Your task to perform on an android device: toggle improve location accuracy Image 0: 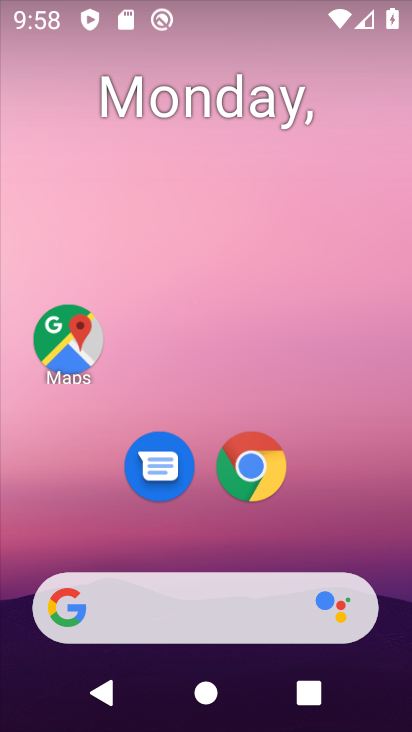
Step 0: drag from (188, 555) to (175, 125)
Your task to perform on an android device: toggle improve location accuracy Image 1: 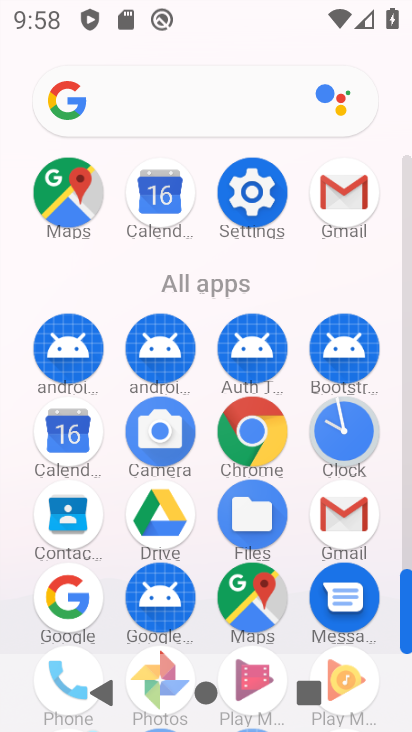
Step 1: click (255, 190)
Your task to perform on an android device: toggle improve location accuracy Image 2: 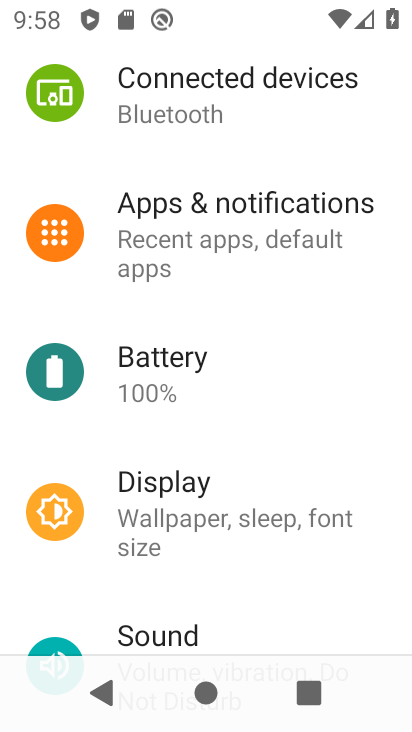
Step 2: drag from (207, 176) to (269, 174)
Your task to perform on an android device: toggle improve location accuracy Image 3: 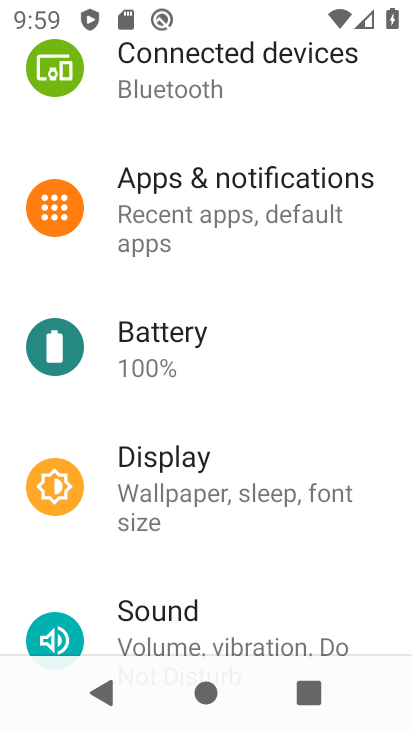
Step 3: drag from (212, 539) to (203, 150)
Your task to perform on an android device: toggle improve location accuracy Image 4: 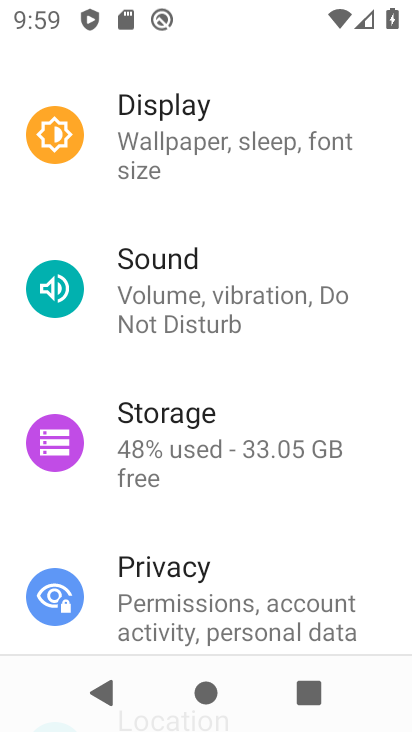
Step 4: drag from (203, 533) to (207, 107)
Your task to perform on an android device: toggle improve location accuracy Image 5: 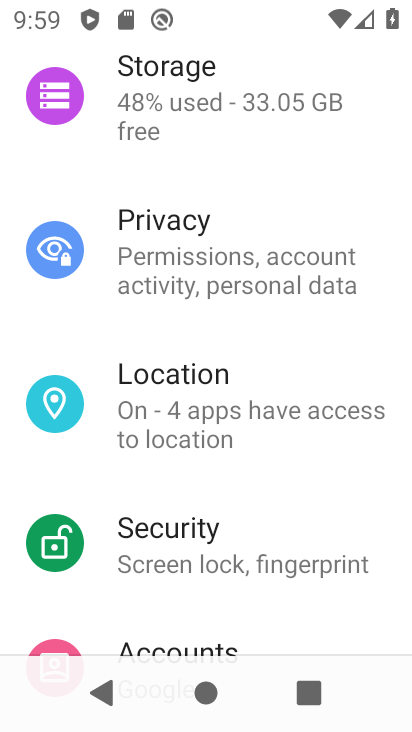
Step 5: click (169, 405)
Your task to perform on an android device: toggle improve location accuracy Image 6: 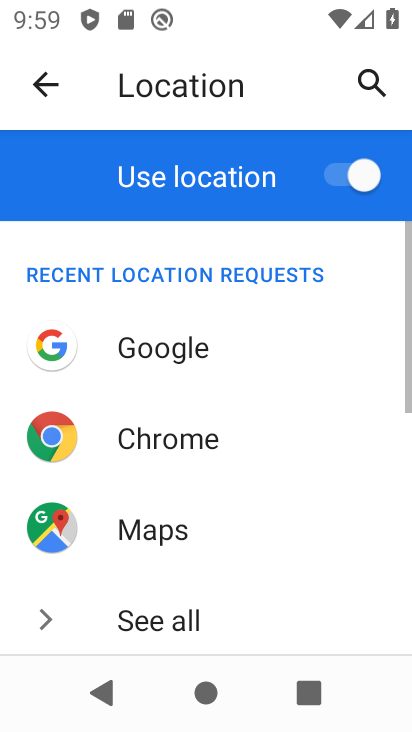
Step 6: drag from (249, 532) to (287, 135)
Your task to perform on an android device: toggle improve location accuracy Image 7: 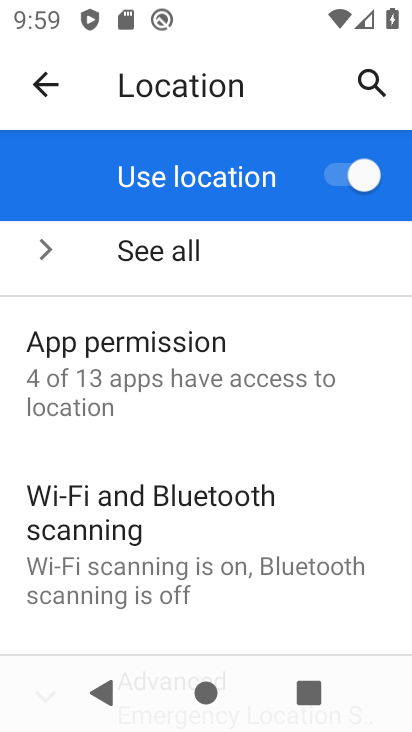
Step 7: drag from (250, 519) to (279, 219)
Your task to perform on an android device: toggle improve location accuracy Image 8: 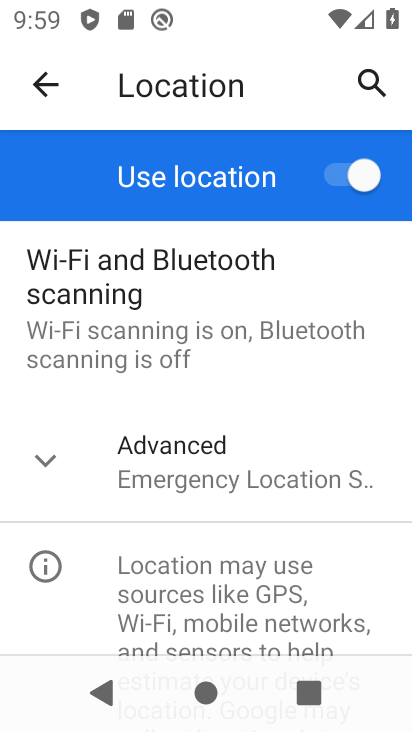
Step 8: click (48, 453)
Your task to perform on an android device: toggle improve location accuracy Image 9: 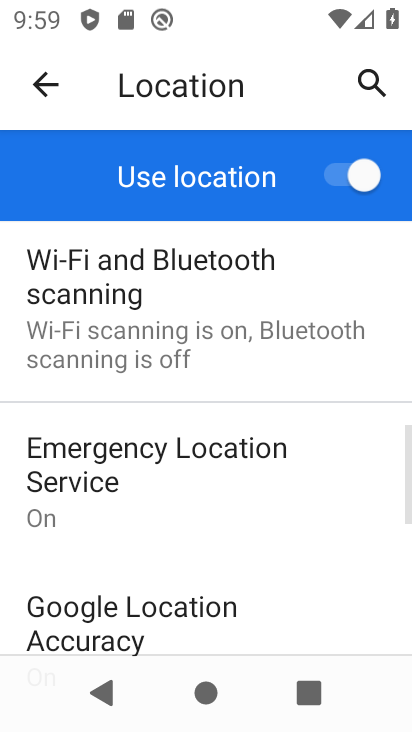
Step 9: drag from (183, 546) to (192, 291)
Your task to perform on an android device: toggle improve location accuracy Image 10: 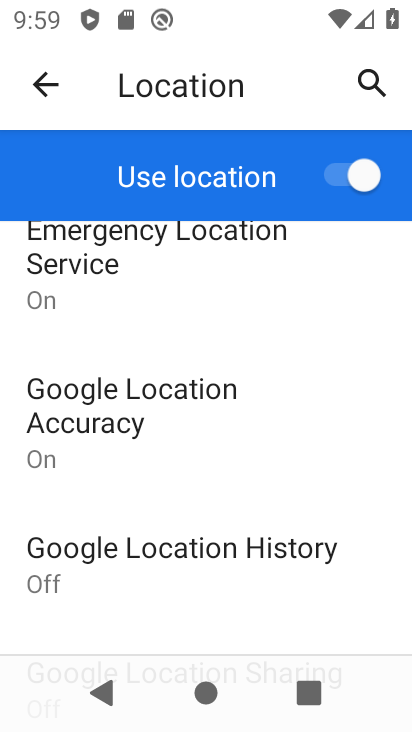
Step 10: click (120, 547)
Your task to perform on an android device: toggle improve location accuracy Image 11: 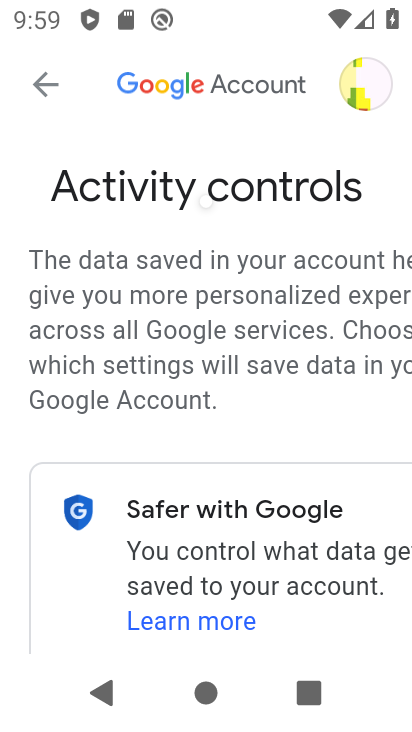
Step 11: task complete